Your task to perform on an android device: remove spam from my inbox in the gmail app Image 0: 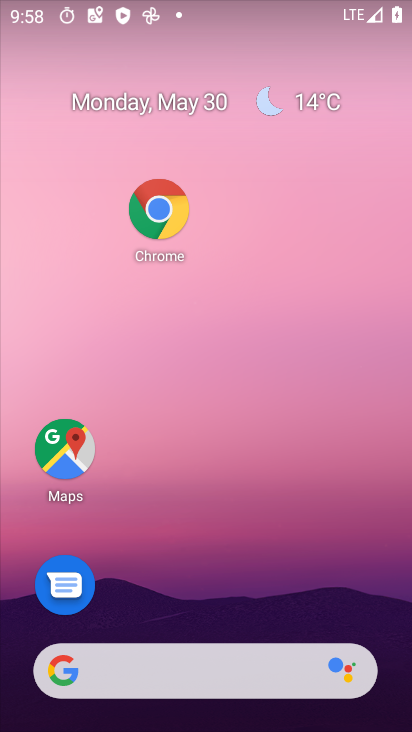
Step 0: drag from (225, 590) to (333, 74)
Your task to perform on an android device: remove spam from my inbox in the gmail app Image 1: 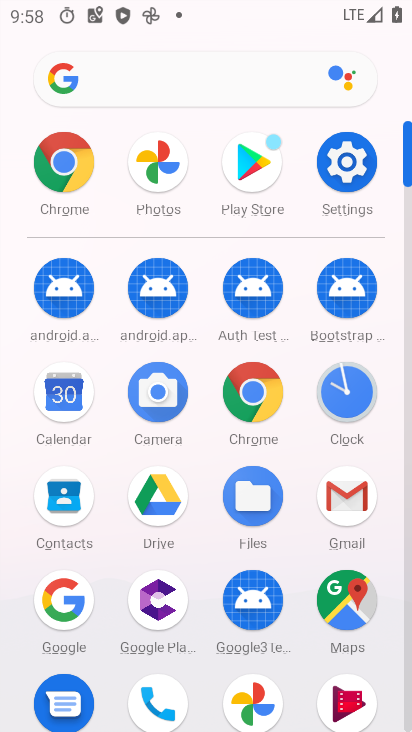
Step 1: click (348, 497)
Your task to perform on an android device: remove spam from my inbox in the gmail app Image 2: 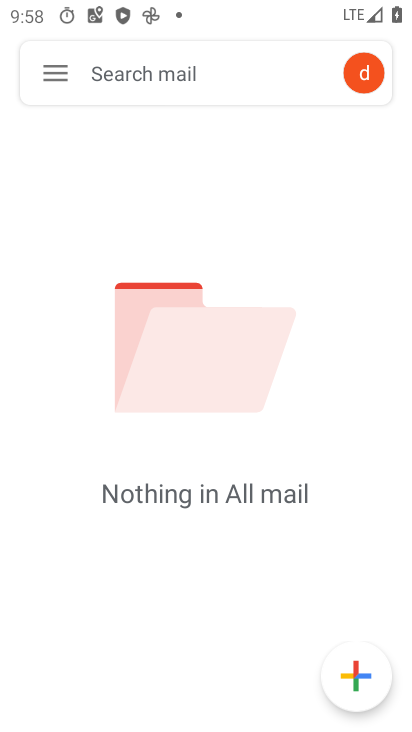
Step 2: click (52, 57)
Your task to perform on an android device: remove spam from my inbox in the gmail app Image 3: 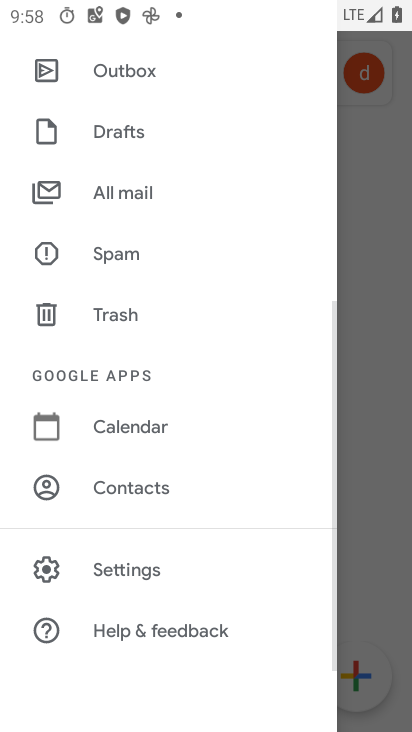
Step 3: click (139, 259)
Your task to perform on an android device: remove spam from my inbox in the gmail app Image 4: 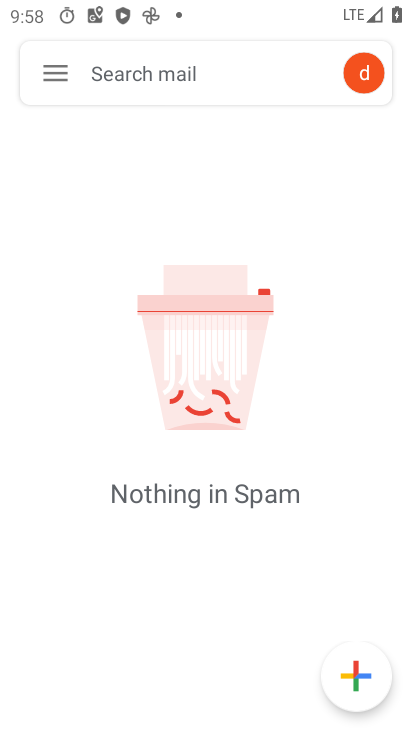
Step 4: task complete